Your task to perform on an android device: turn off airplane mode Image 0: 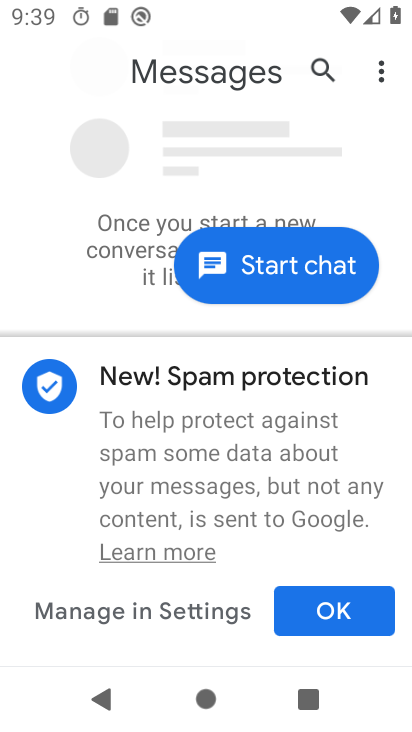
Step 0: press home button
Your task to perform on an android device: turn off airplane mode Image 1: 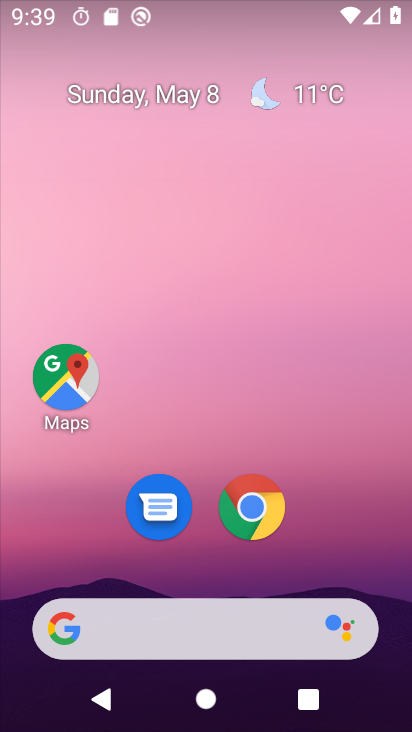
Step 1: task complete